Your task to perform on an android device: turn off priority inbox in the gmail app Image 0: 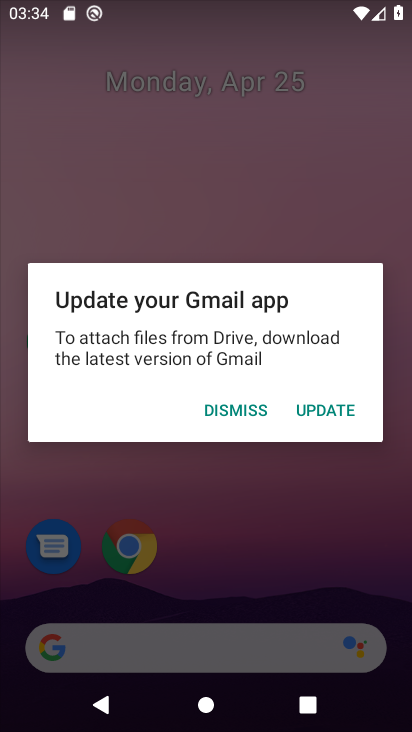
Step 0: press home button
Your task to perform on an android device: turn off priority inbox in the gmail app Image 1: 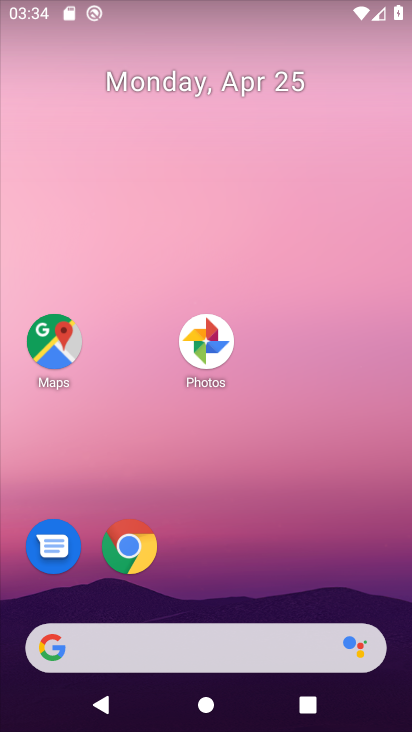
Step 1: drag from (265, 463) to (290, 288)
Your task to perform on an android device: turn off priority inbox in the gmail app Image 2: 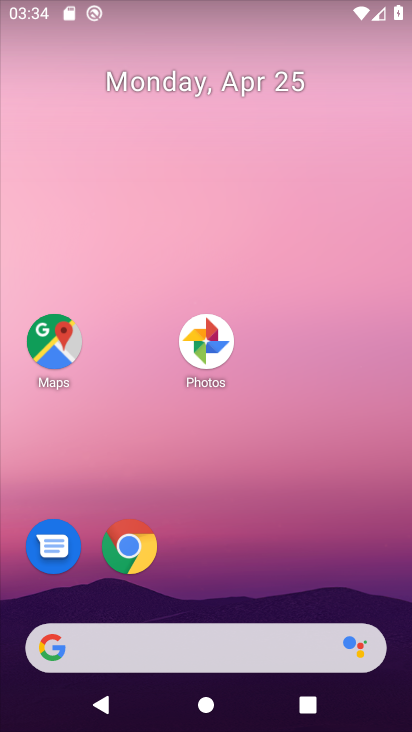
Step 2: drag from (326, 531) to (347, 238)
Your task to perform on an android device: turn off priority inbox in the gmail app Image 3: 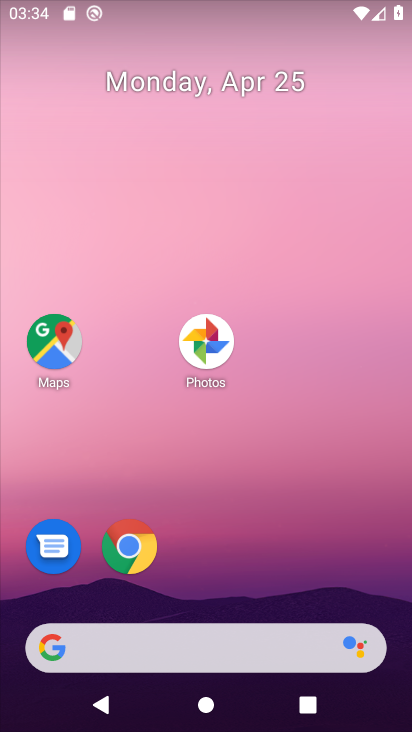
Step 3: drag from (260, 526) to (313, 195)
Your task to perform on an android device: turn off priority inbox in the gmail app Image 4: 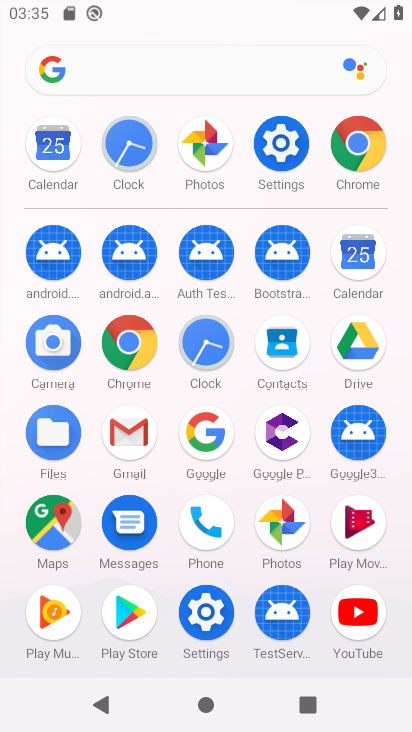
Step 4: click (123, 428)
Your task to perform on an android device: turn off priority inbox in the gmail app Image 5: 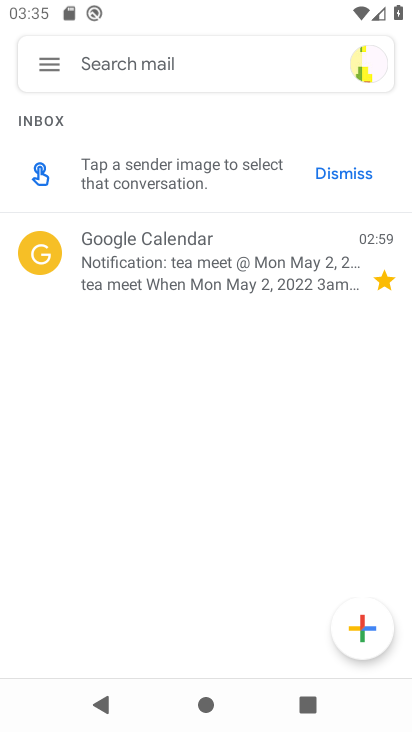
Step 5: click (42, 60)
Your task to perform on an android device: turn off priority inbox in the gmail app Image 6: 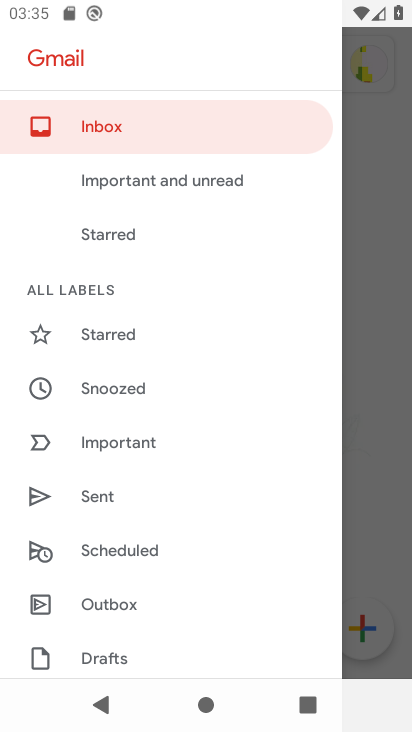
Step 6: drag from (155, 586) to (202, 265)
Your task to perform on an android device: turn off priority inbox in the gmail app Image 7: 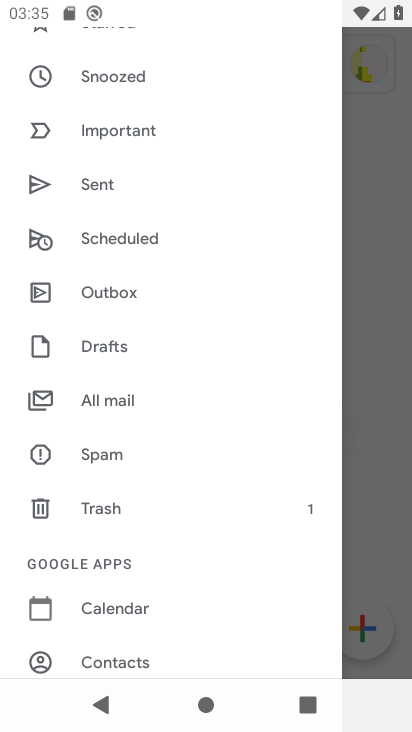
Step 7: drag from (117, 591) to (221, 87)
Your task to perform on an android device: turn off priority inbox in the gmail app Image 8: 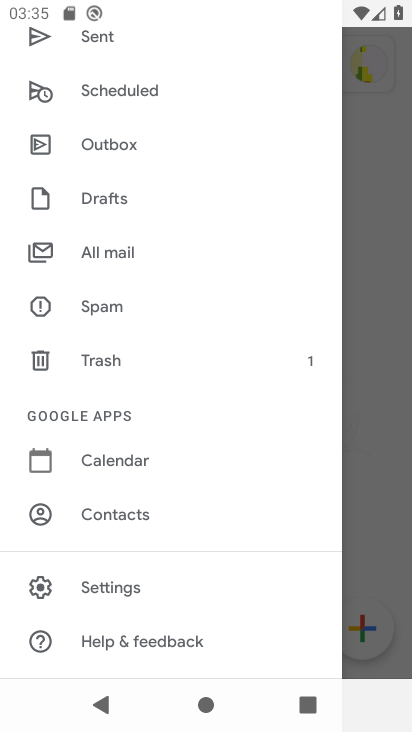
Step 8: click (137, 588)
Your task to perform on an android device: turn off priority inbox in the gmail app Image 9: 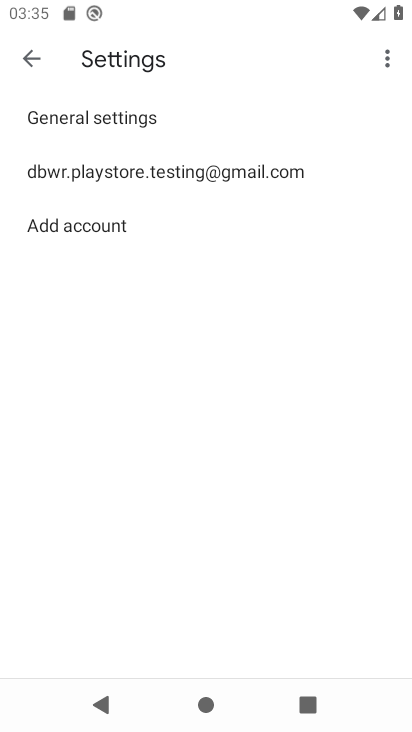
Step 9: click (161, 154)
Your task to perform on an android device: turn off priority inbox in the gmail app Image 10: 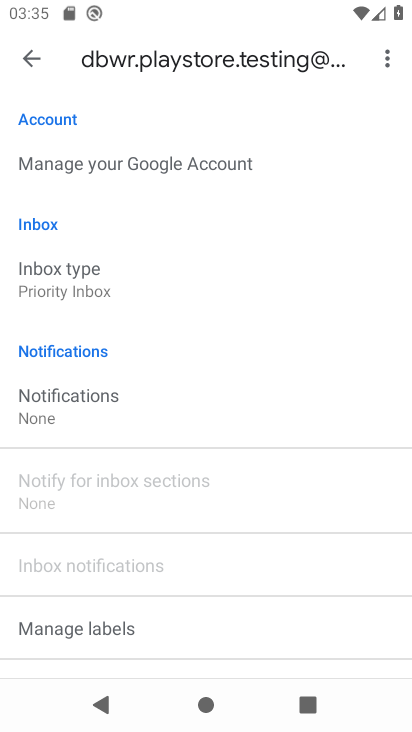
Step 10: drag from (160, 527) to (158, 418)
Your task to perform on an android device: turn off priority inbox in the gmail app Image 11: 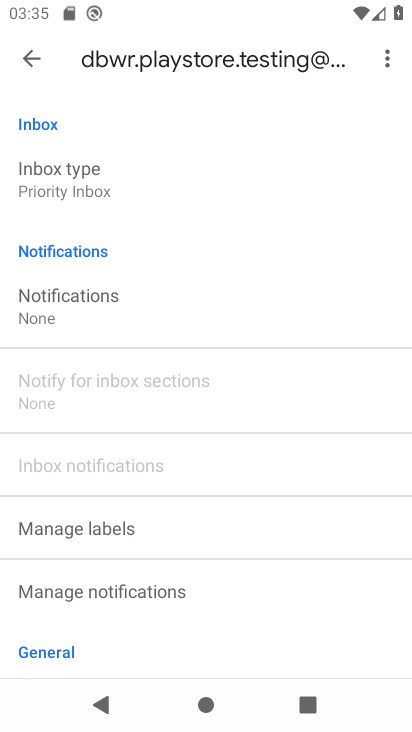
Step 11: click (104, 182)
Your task to perform on an android device: turn off priority inbox in the gmail app Image 12: 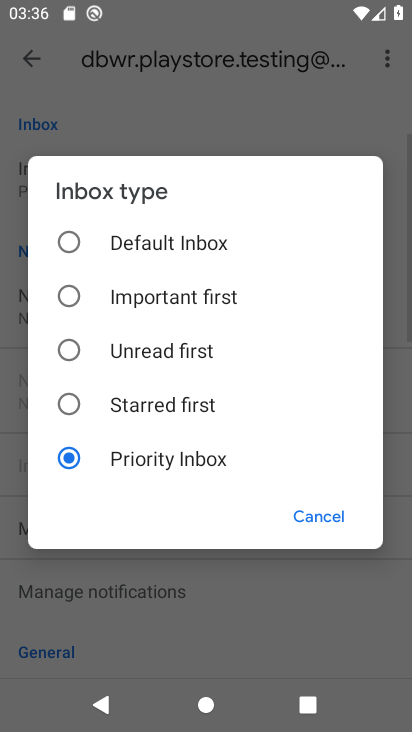
Step 12: click (147, 239)
Your task to perform on an android device: turn off priority inbox in the gmail app Image 13: 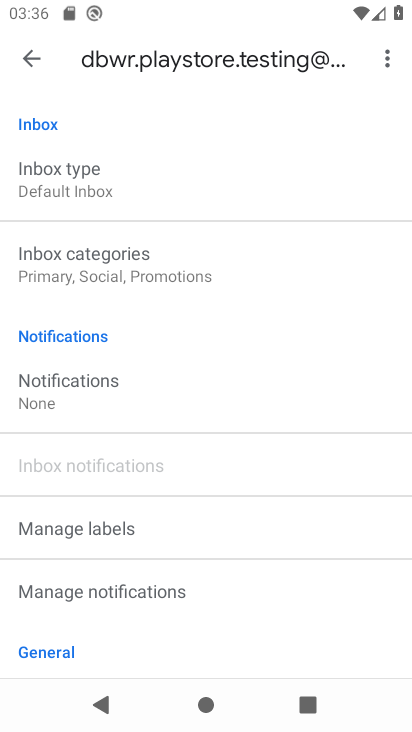
Step 13: task complete